Your task to perform on an android device: Go to Wikipedia Image 0: 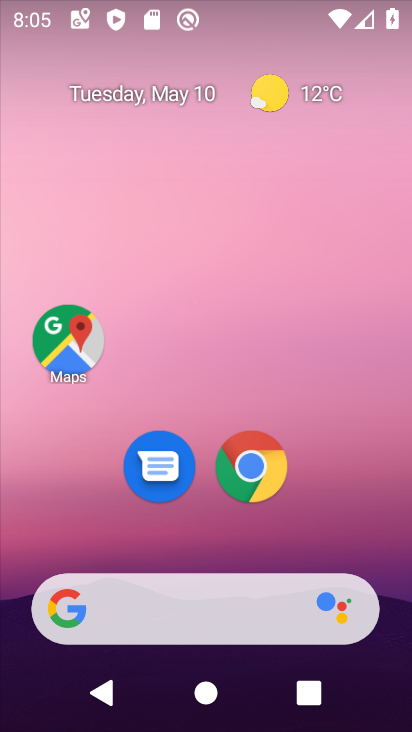
Step 0: click (256, 494)
Your task to perform on an android device: Go to Wikipedia Image 1: 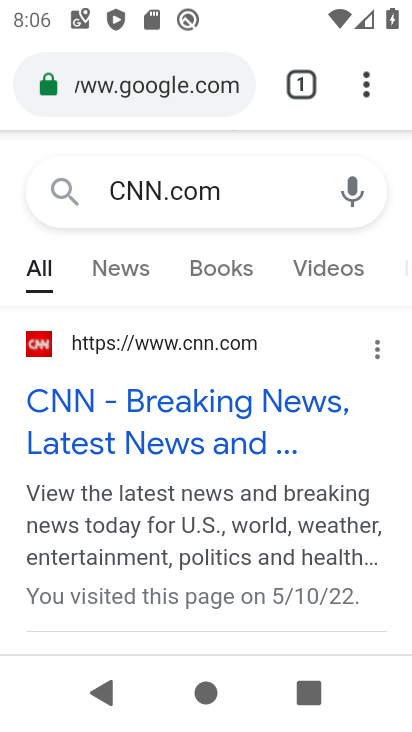
Step 1: click (366, 84)
Your task to perform on an android device: Go to Wikipedia Image 2: 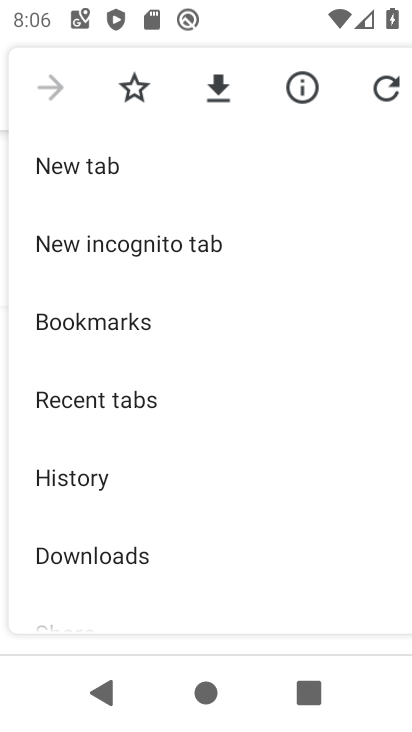
Step 2: click (131, 175)
Your task to perform on an android device: Go to Wikipedia Image 3: 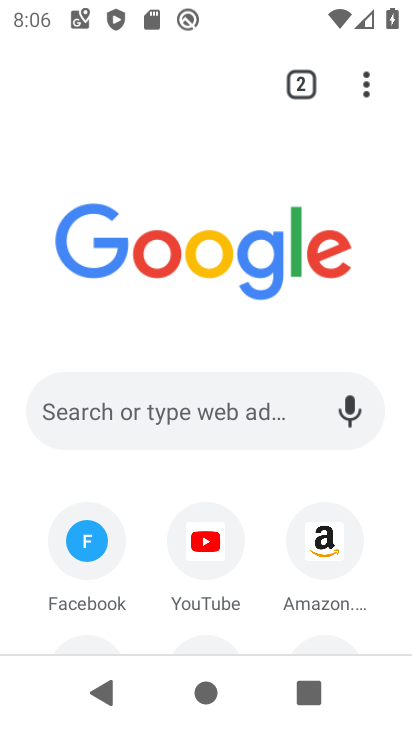
Step 3: drag from (242, 504) to (284, 204)
Your task to perform on an android device: Go to Wikipedia Image 4: 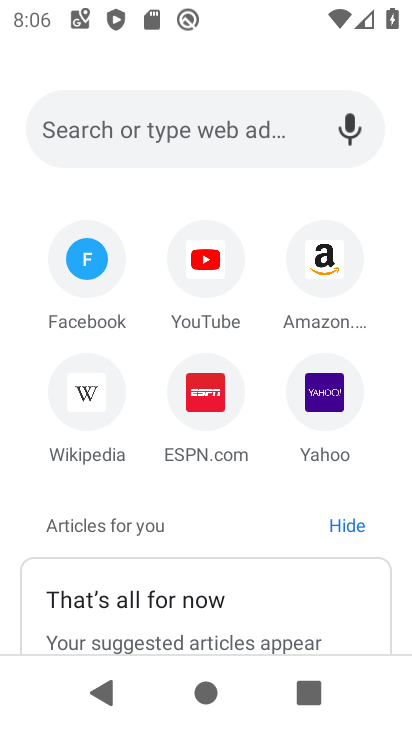
Step 4: click (97, 403)
Your task to perform on an android device: Go to Wikipedia Image 5: 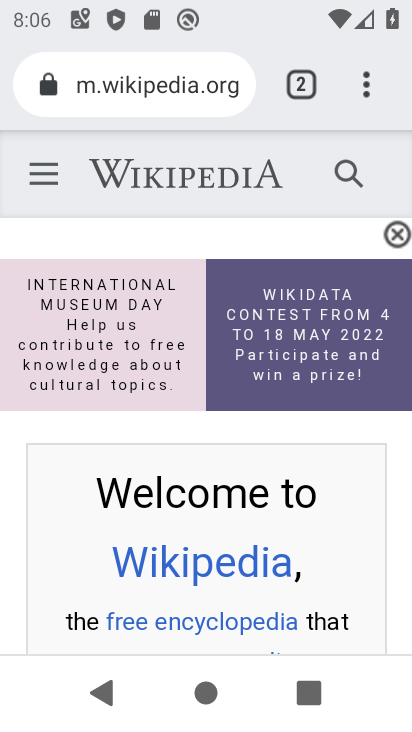
Step 5: task complete